Your task to perform on an android device: see sites visited before in the chrome app Image 0: 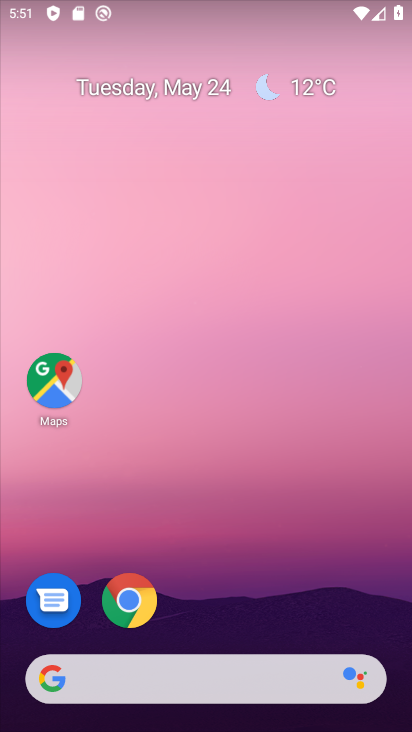
Step 0: drag from (311, 690) to (323, 264)
Your task to perform on an android device: see sites visited before in the chrome app Image 1: 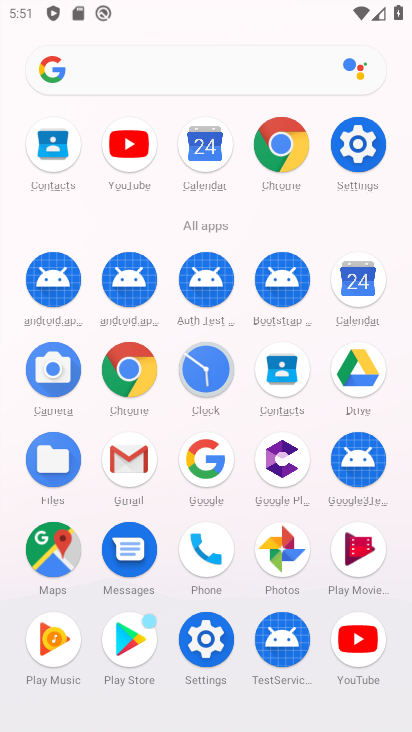
Step 1: click (131, 391)
Your task to perform on an android device: see sites visited before in the chrome app Image 2: 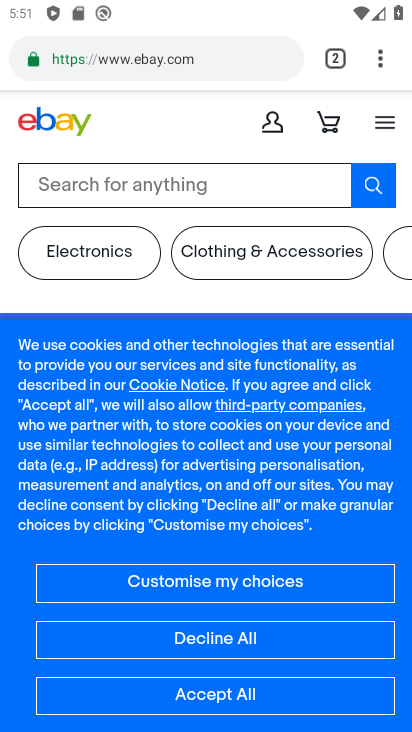
Step 2: task complete